Your task to perform on an android device: Do I have any events this weekend? Image 0: 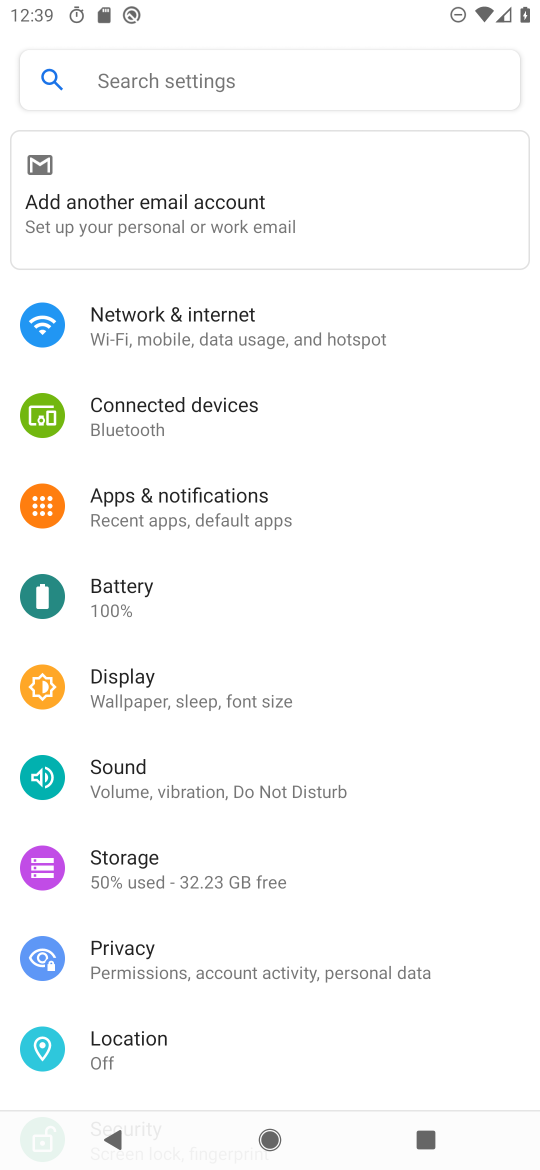
Step 0: press home button
Your task to perform on an android device: Do I have any events this weekend? Image 1: 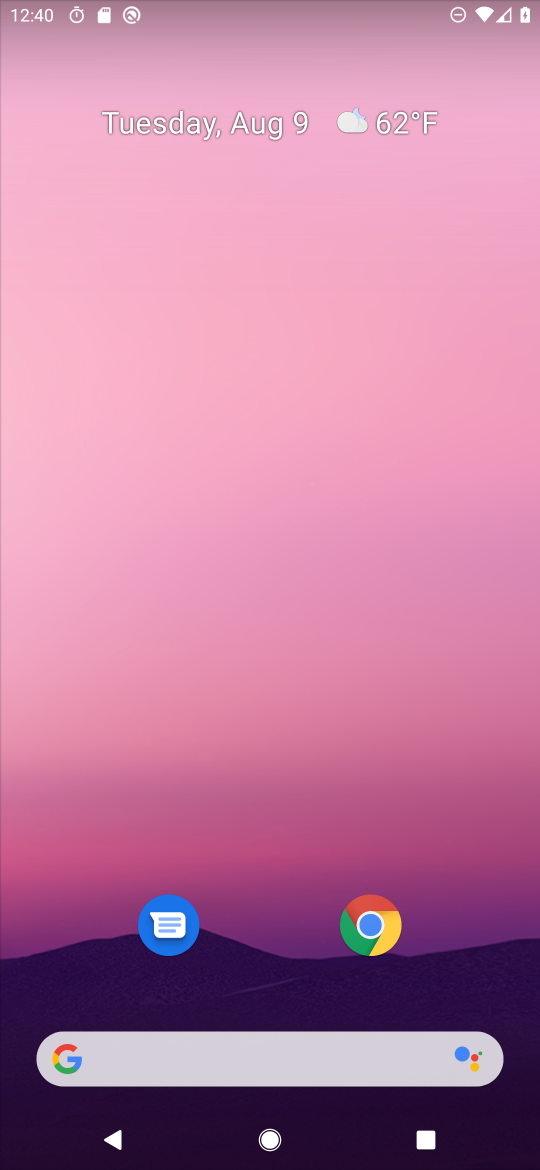
Step 1: drag from (280, 824) to (341, 143)
Your task to perform on an android device: Do I have any events this weekend? Image 2: 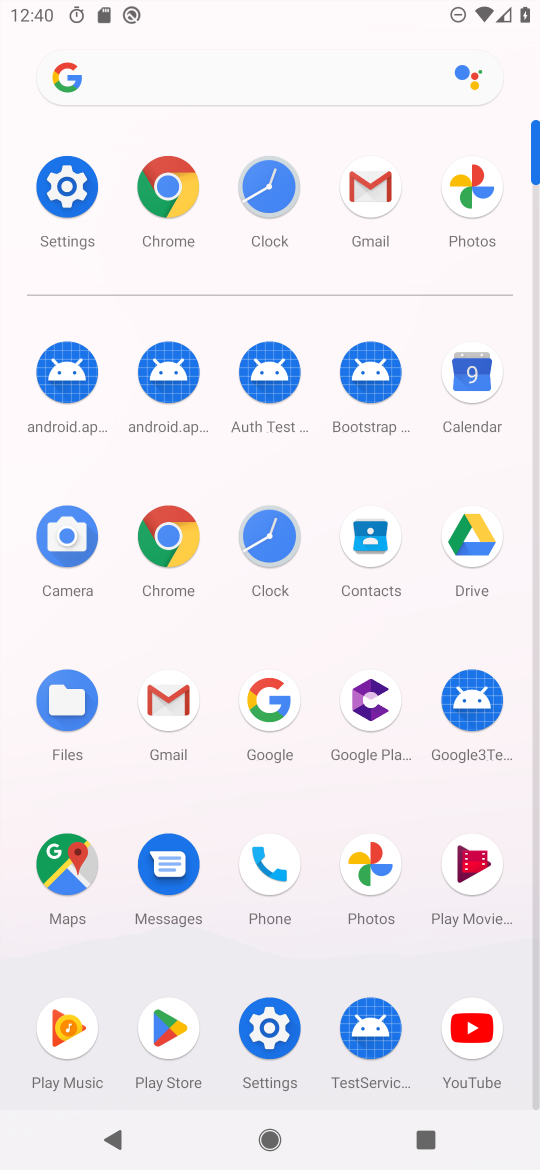
Step 2: click (465, 372)
Your task to perform on an android device: Do I have any events this weekend? Image 3: 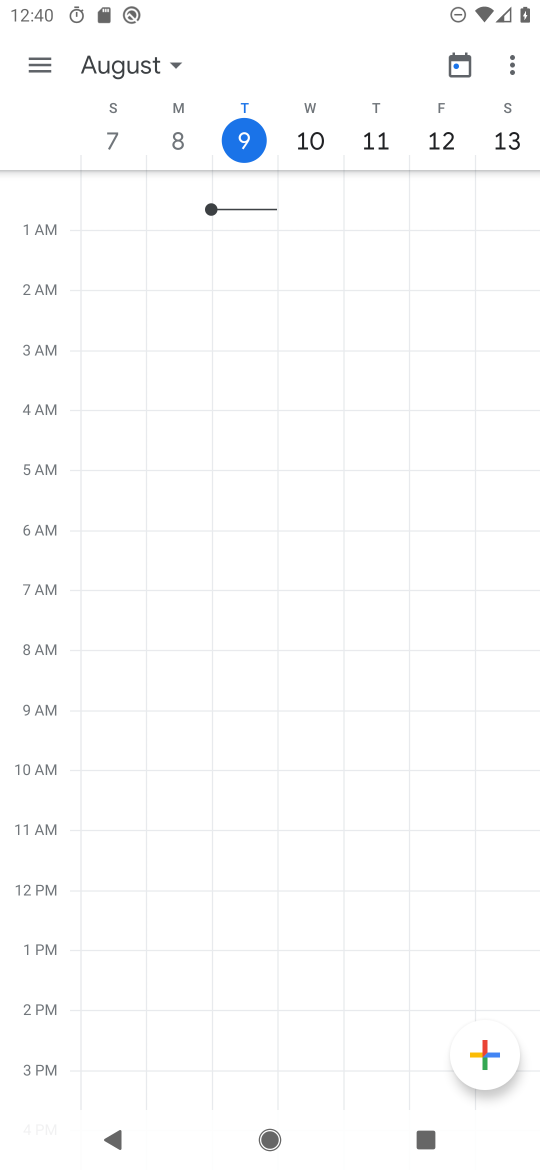
Step 3: click (499, 132)
Your task to perform on an android device: Do I have any events this weekend? Image 4: 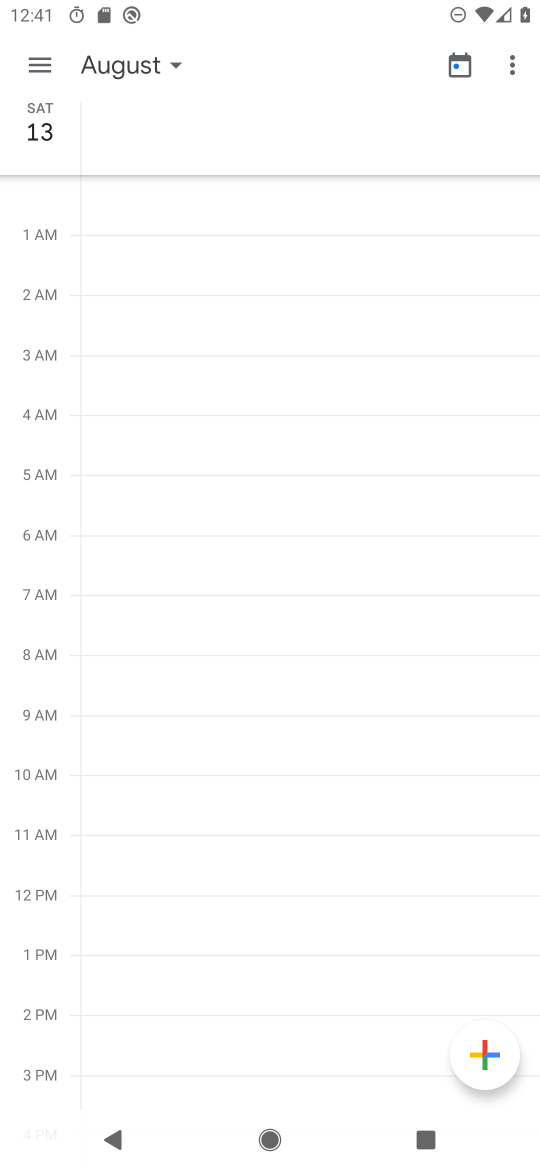
Step 4: task complete